Your task to perform on an android device: check the backup settings in the google photos Image 0: 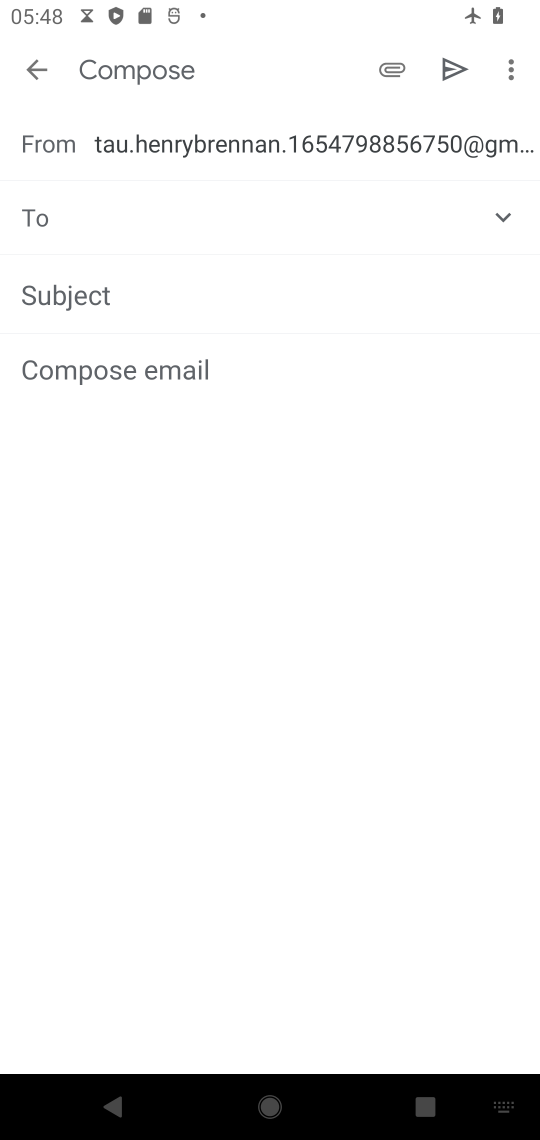
Step 0: press home button
Your task to perform on an android device: check the backup settings in the google photos Image 1: 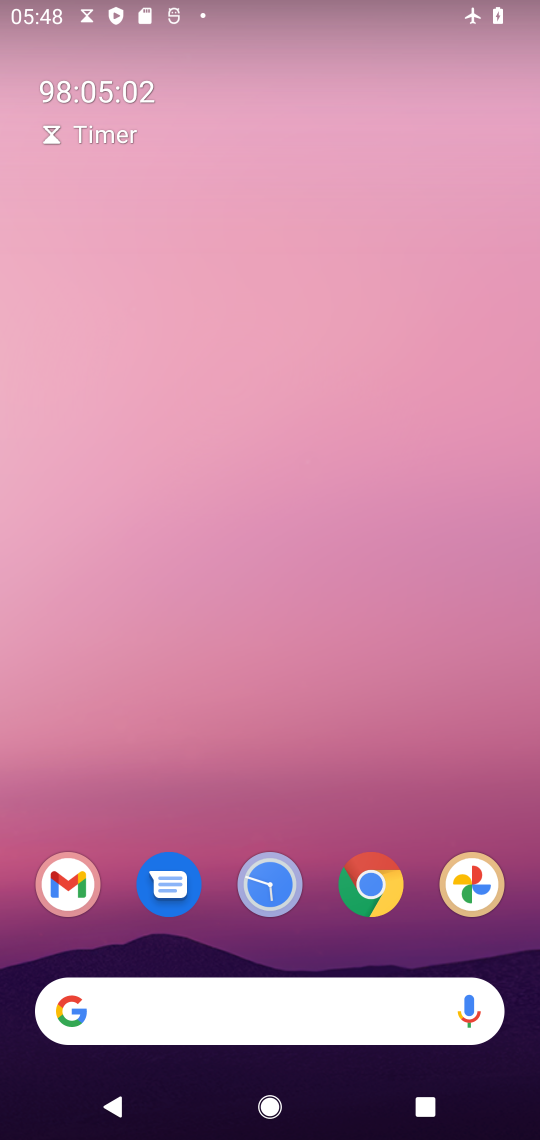
Step 1: drag from (254, 938) to (268, 10)
Your task to perform on an android device: check the backup settings in the google photos Image 2: 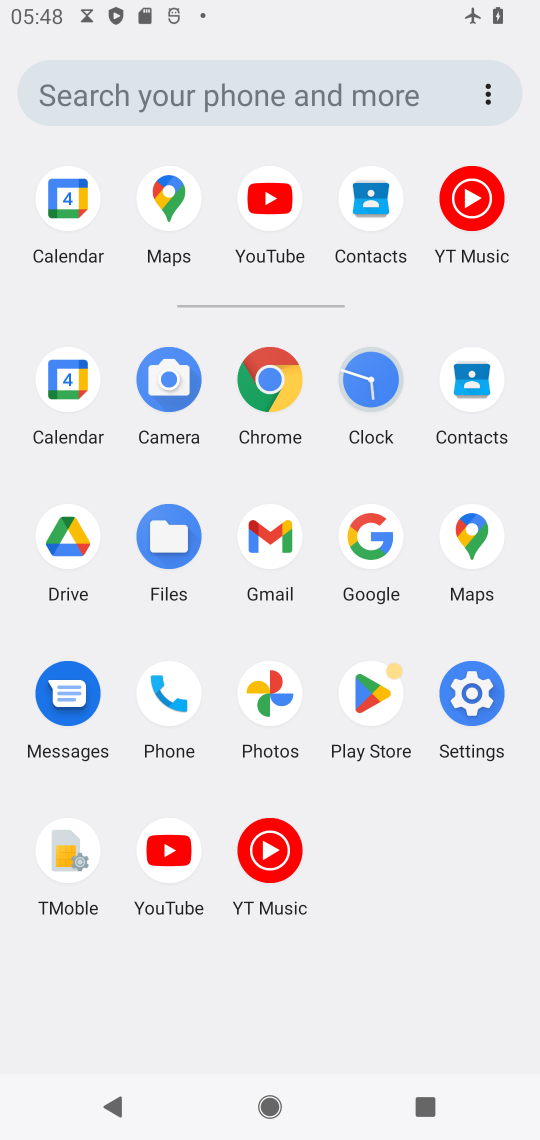
Step 2: click (252, 687)
Your task to perform on an android device: check the backup settings in the google photos Image 3: 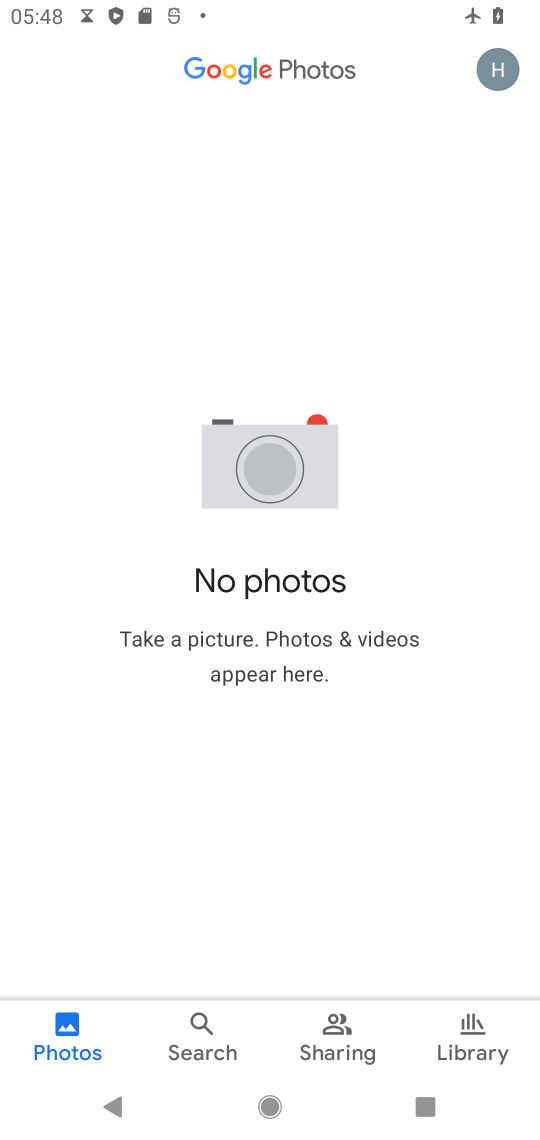
Step 3: click (482, 65)
Your task to perform on an android device: check the backup settings in the google photos Image 4: 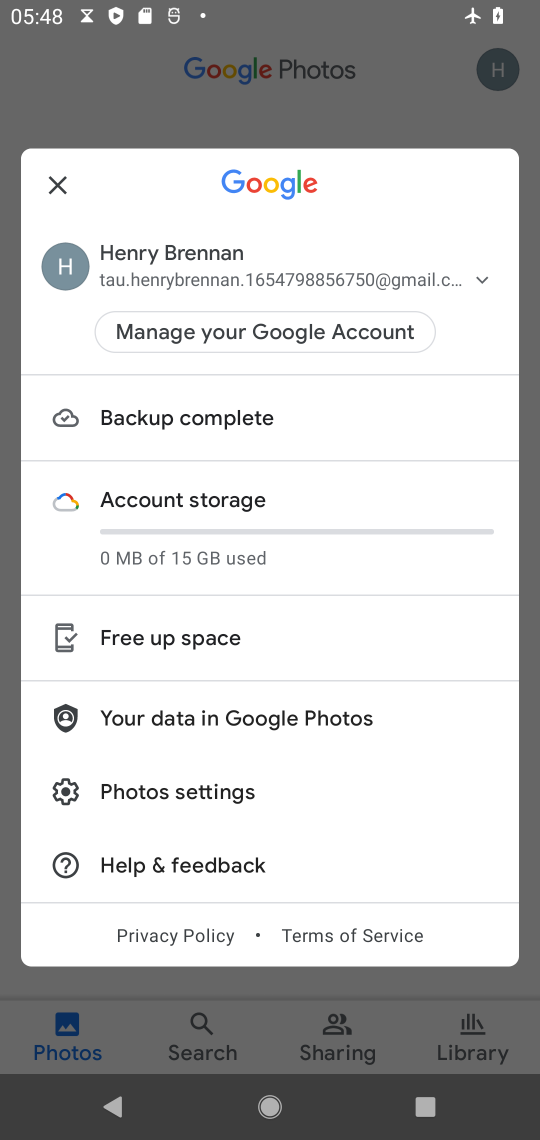
Step 4: drag from (145, 882) to (230, 434)
Your task to perform on an android device: check the backup settings in the google photos Image 5: 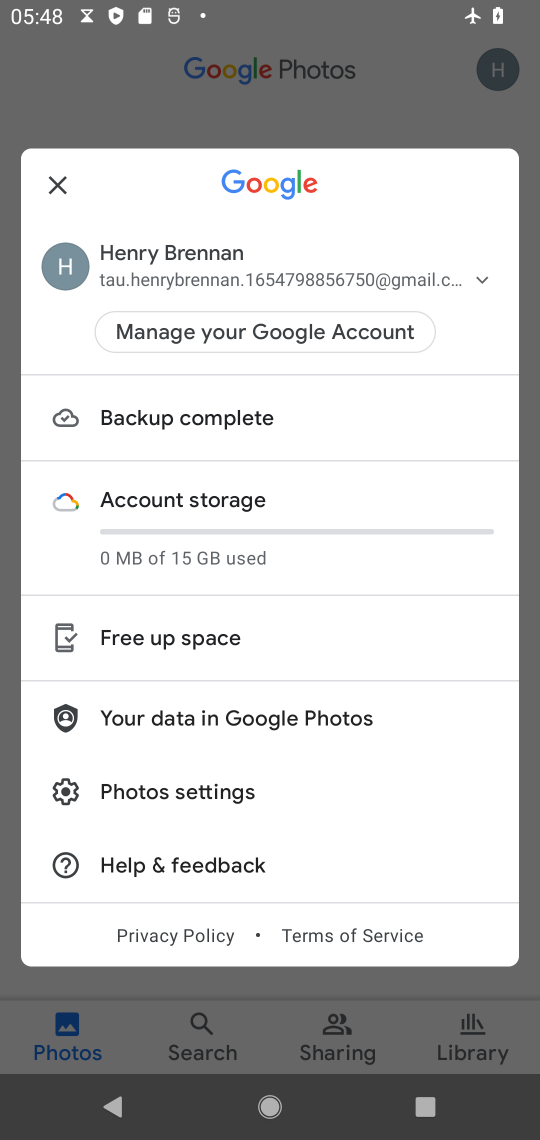
Step 5: drag from (160, 779) to (227, 412)
Your task to perform on an android device: check the backup settings in the google photos Image 6: 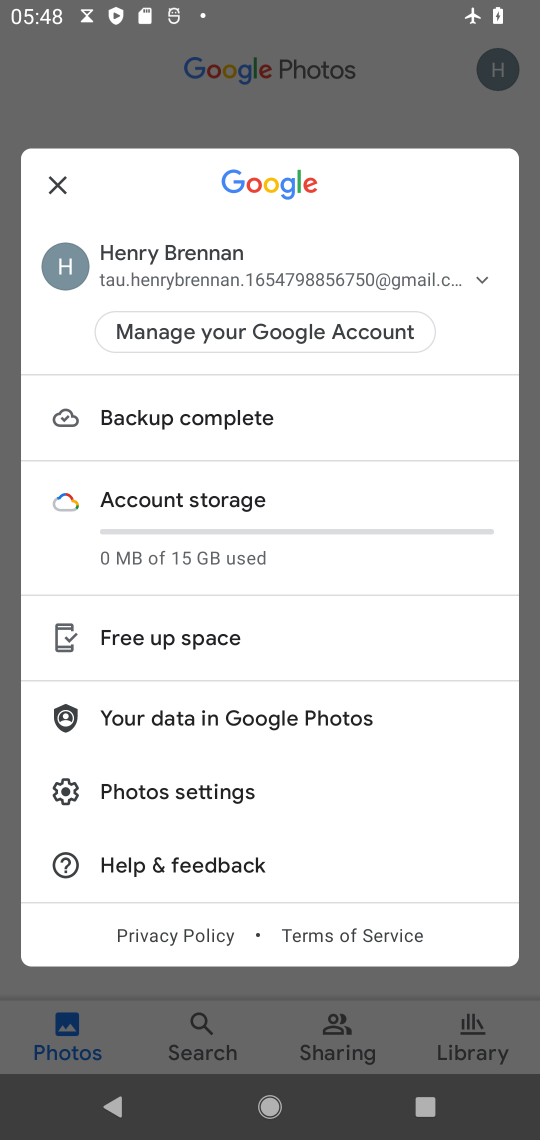
Step 6: click (209, 806)
Your task to perform on an android device: check the backup settings in the google photos Image 7: 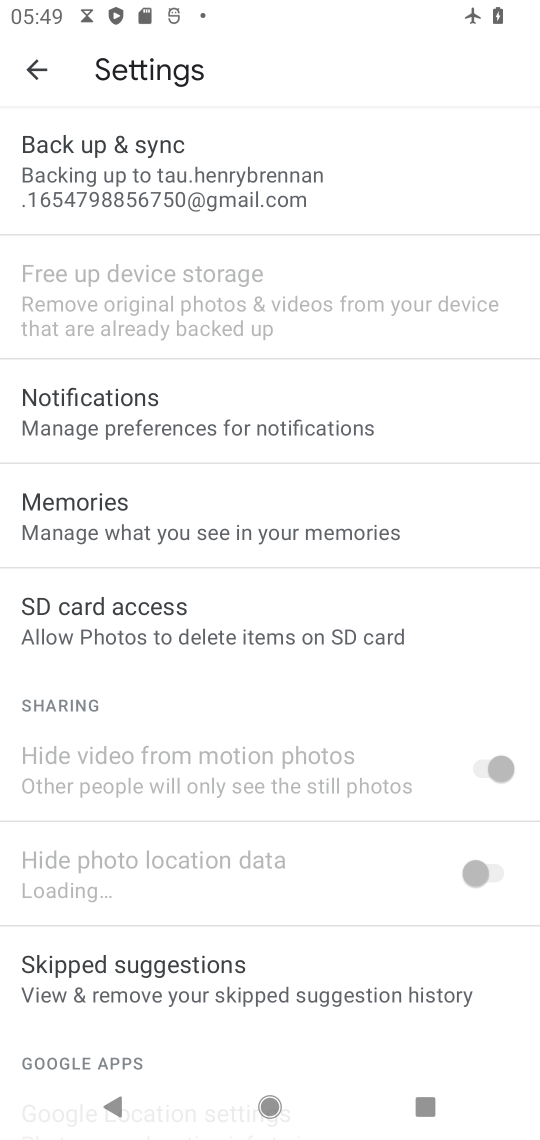
Step 7: click (176, 168)
Your task to perform on an android device: check the backup settings in the google photos Image 8: 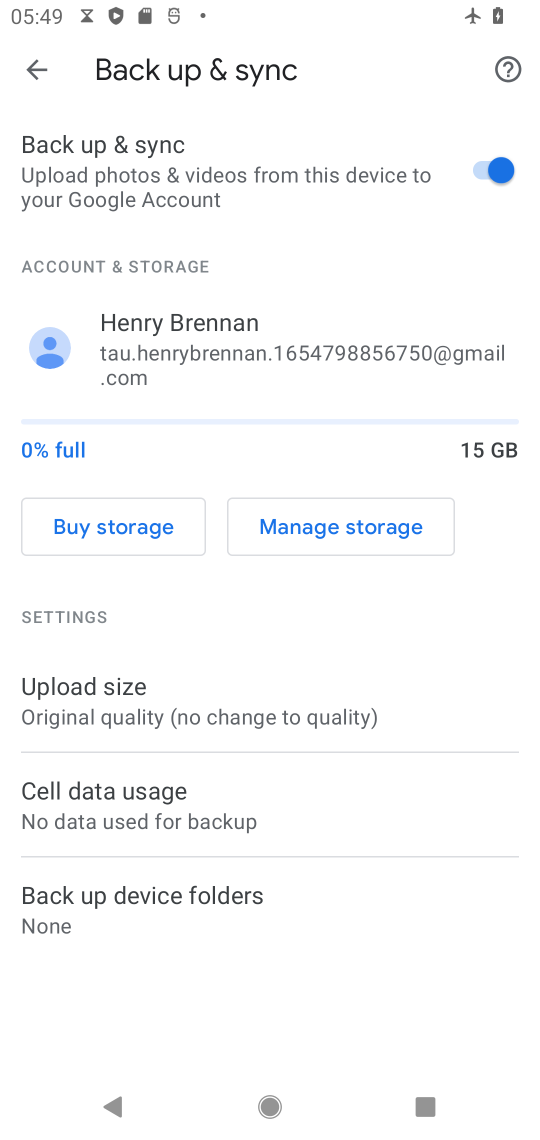
Step 8: task complete